Your task to perform on an android device: Go to Google Image 0: 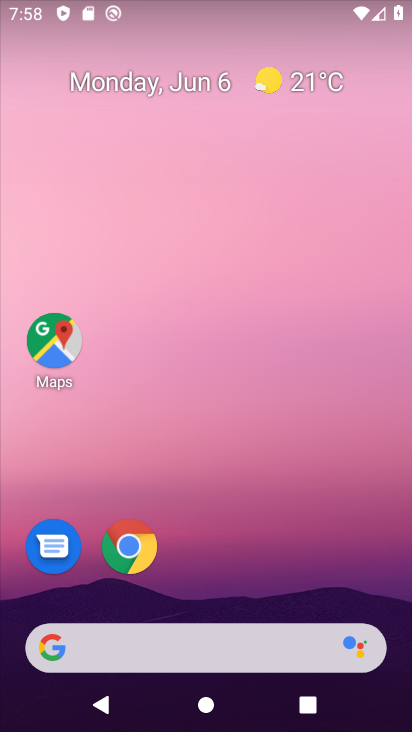
Step 0: click (131, 546)
Your task to perform on an android device: Go to Google Image 1: 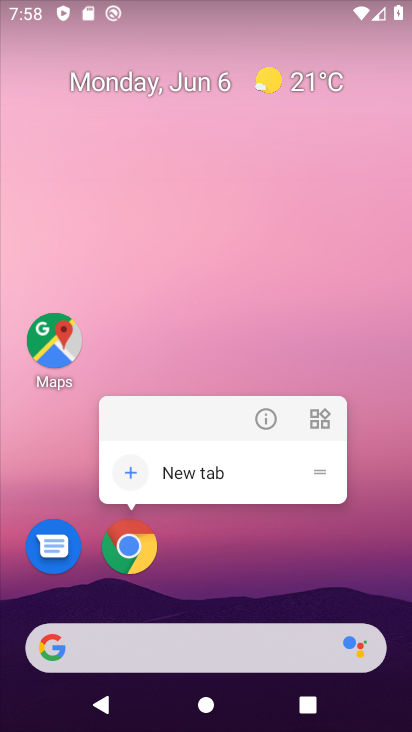
Step 1: click (131, 550)
Your task to perform on an android device: Go to Google Image 2: 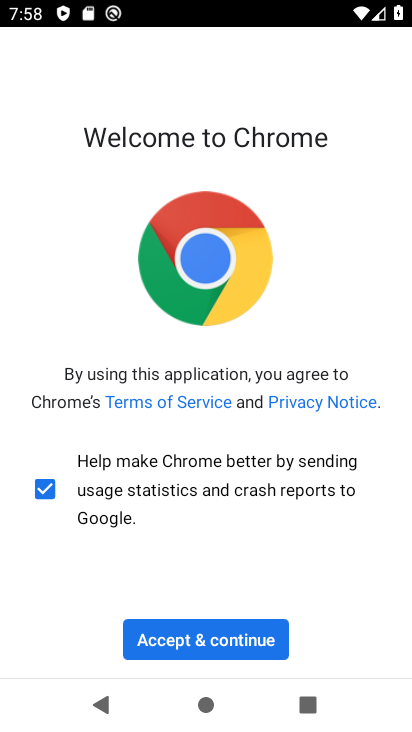
Step 2: click (196, 628)
Your task to perform on an android device: Go to Google Image 3: 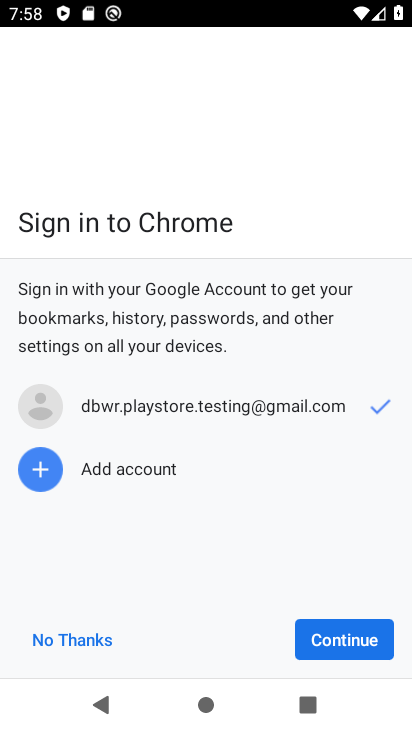
Step 3: click (326, 642)
Your task to perform on an android device: Go to Google Image 4: 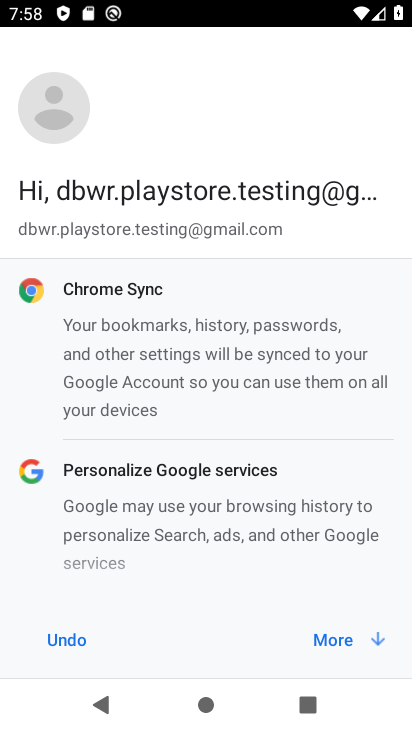
Step 4: click (328, 645)
Your task to perform on an android device: Go to Google Image 5: 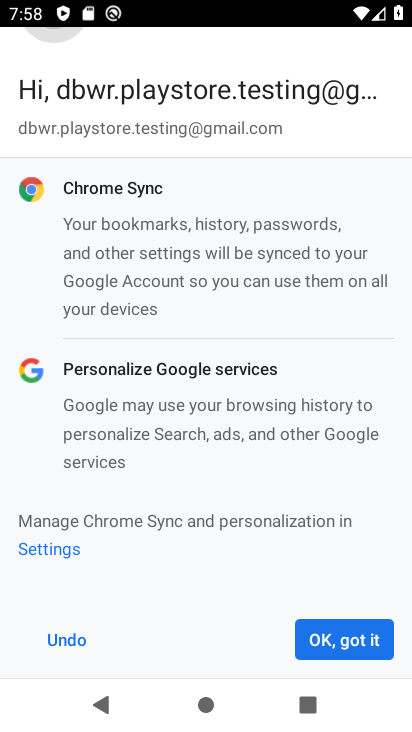
Step 5: click (328, 643)
Your task to perform on an android device: Go to Google Image 6: 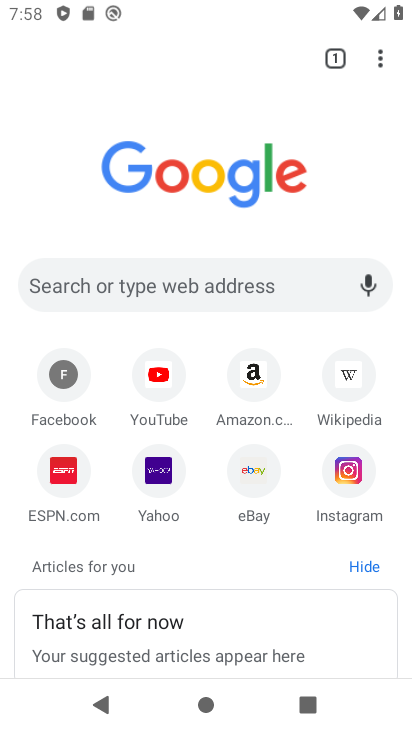
Step 6: click (198, 275)
Your task to perform on an android device: Go to Google Image 7: 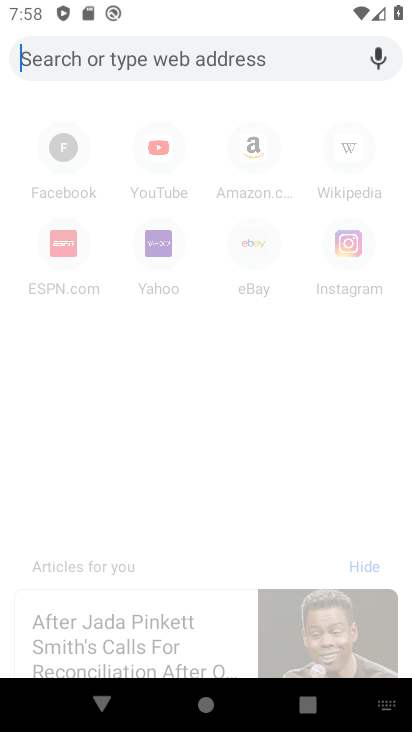
Step 7: task complete